Your task to perform on an android device: show emergency info Image 0: 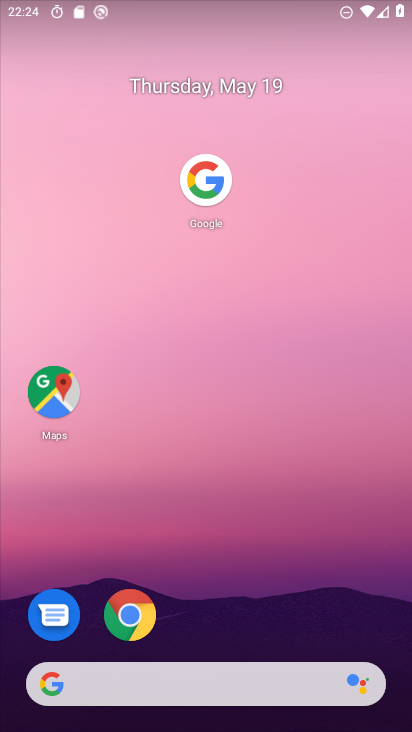
Step 0: drag from (168, 589) to (218, 36)
Your task to perform on an android device: show emergency info Image 1: 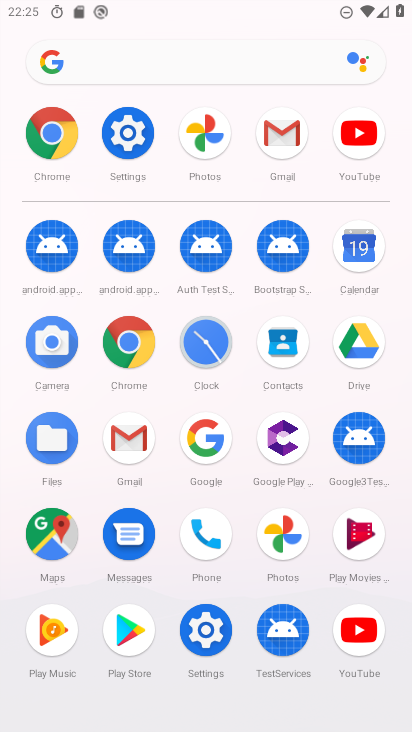
Step 1: click (125, 144)
Your task to perform on an android device: show emergency info Image 2: 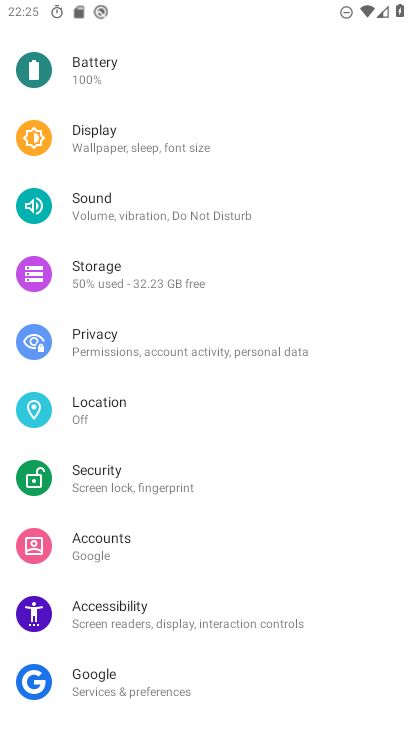
Step 2: drag from (211, 618) to (215, 149)
Your task to perform on an android device: show emergency info Image 3: 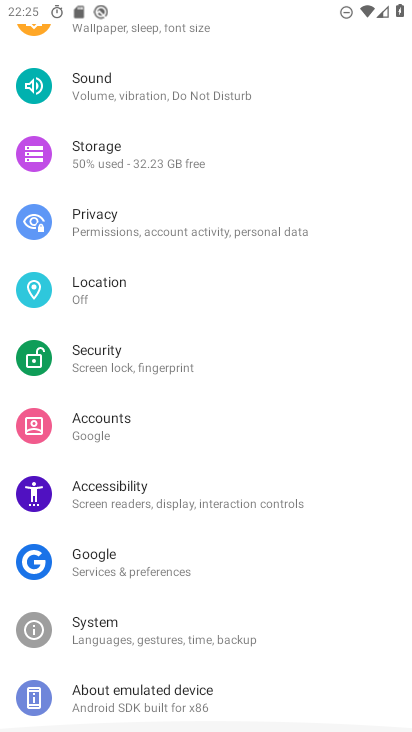
Step 3: click (133, 685)
Your task to perform on an android device: show emergency info Image 4: 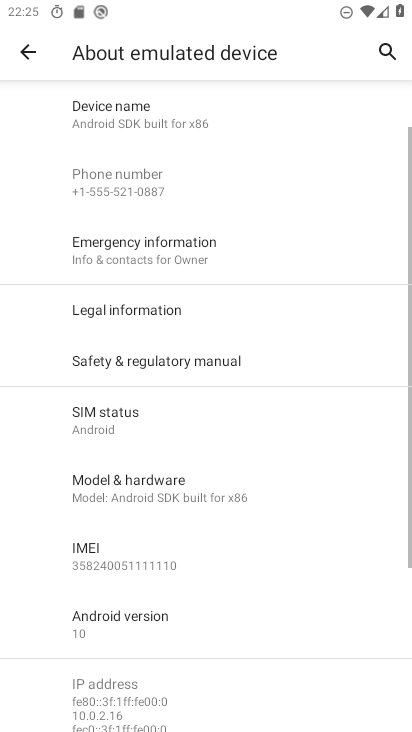
Step 4: click (145, 250)
Your task to perform on an android device: show emergency info Image 5: 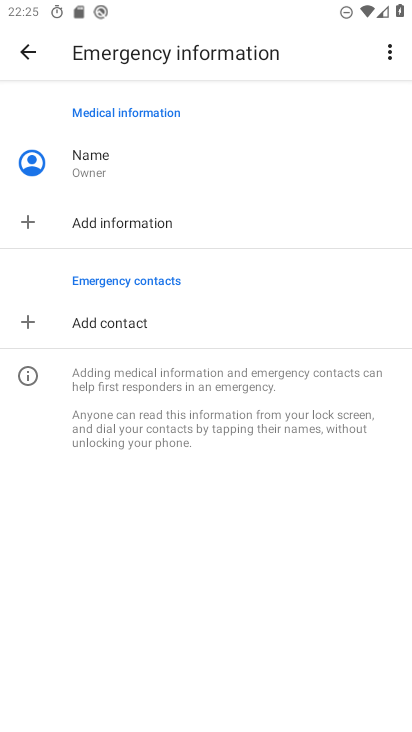
Step 5: task complete